Your task to perform on an android device: delete browsing data in the chrome app Image 0: 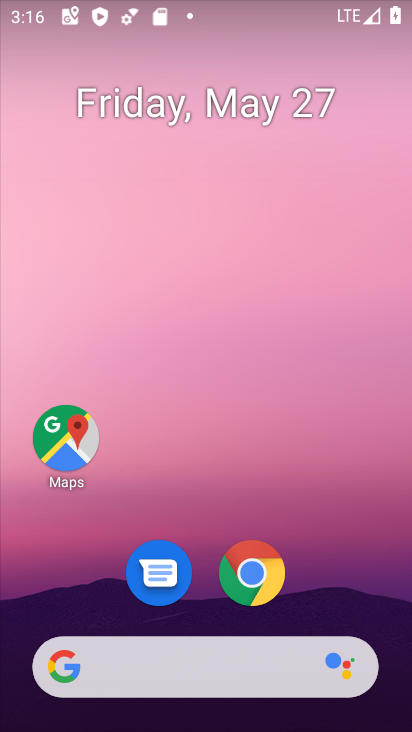
Step 0: click (258, 571)
Your task to perform on an android device: delete browsing data in the chrome app Image 1: 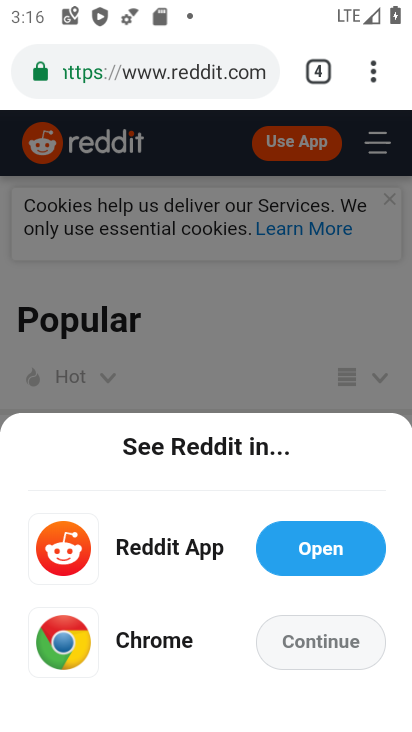
Step 1: click (372, 65)
Your task to perform on an android device: delete browsing data in the chrome app Image 2: 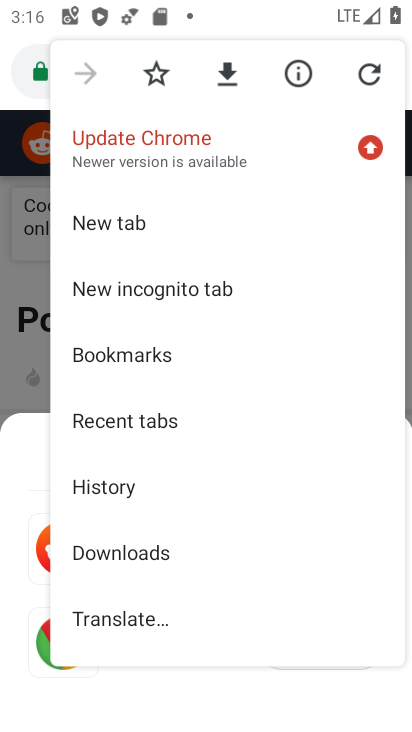
Step 2: click (119, 475)
Your task to perform on an android device: delete browsing data in the chrome app Image 3: 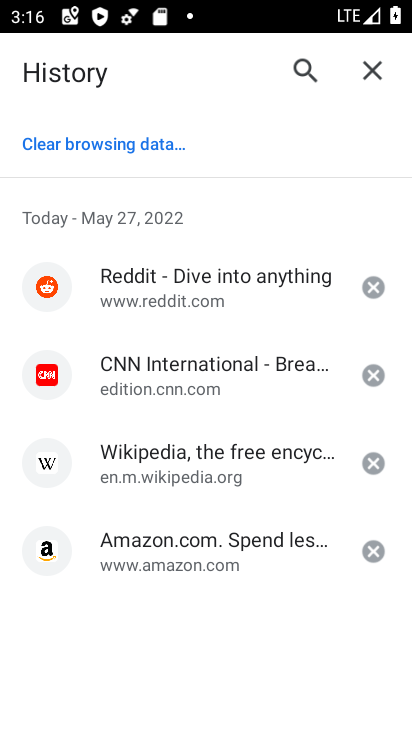
Step 3: click (150, 141)
Your task to perform on an android device: delete browsing data in the chrome app Image 4: 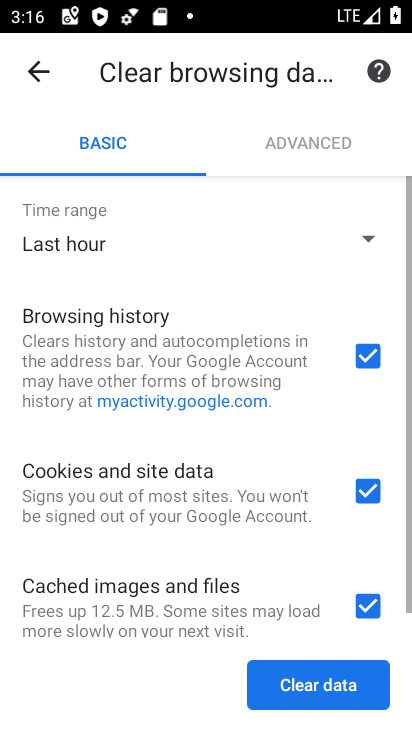
Step 4: click (319, 683)
Your task to perform on an android device: delete browsing data in the chrome app Image 5: 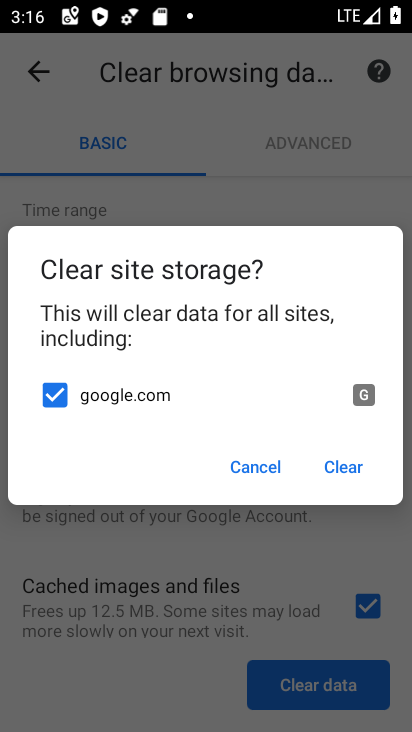
Step 5: click (353, 467)
Your task to perform on an android device: delete browsing data in the chrome app Image 6: 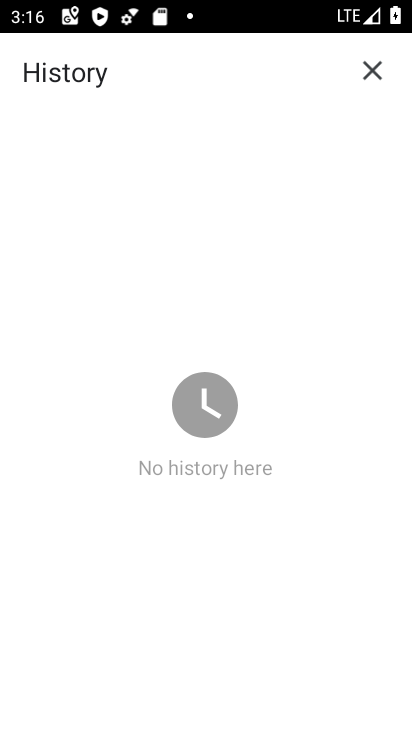
Step 6: task complete